Your task to perform on an android device: add a label to a message in the gmail app Image 0: 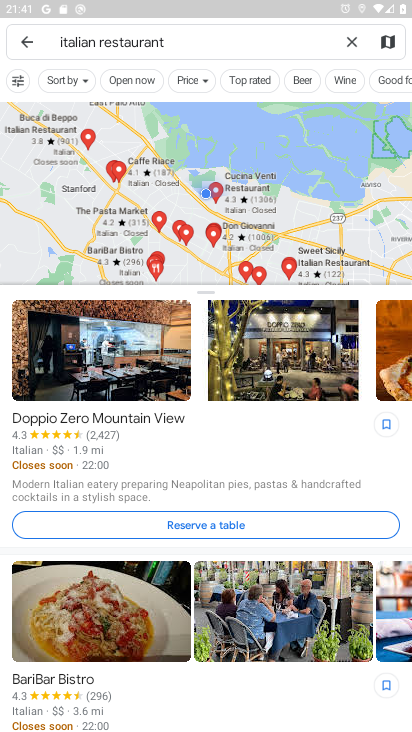
Step 0: press home button
Your task to perform on an android device: add a label to a message in the gmail app Image 1: 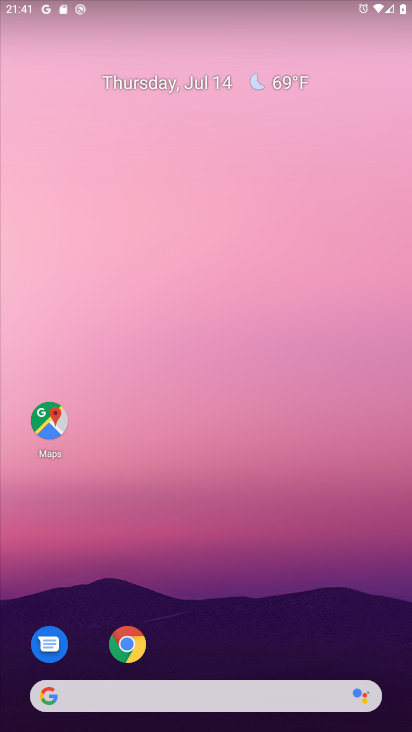
Step 1: drag from (169, 657) to (138, 127)
Your task to perform on an android device: add a label to a message in the gmail app Image 2: 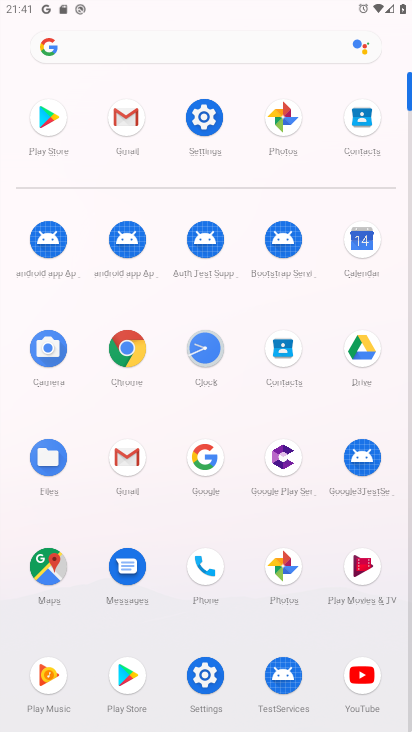
Step 2: click (117, 113)
Your task to perform on an android device: add a label to a message in the gmail app Image 3: 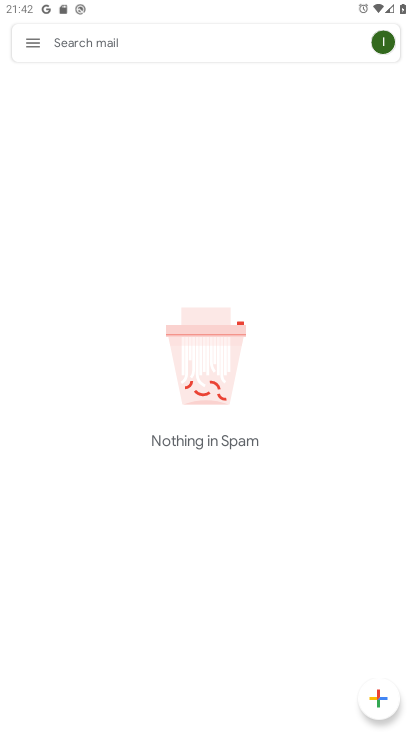
Step 3: task complete